Your task to perform on an android device: Go to Google Image 0: 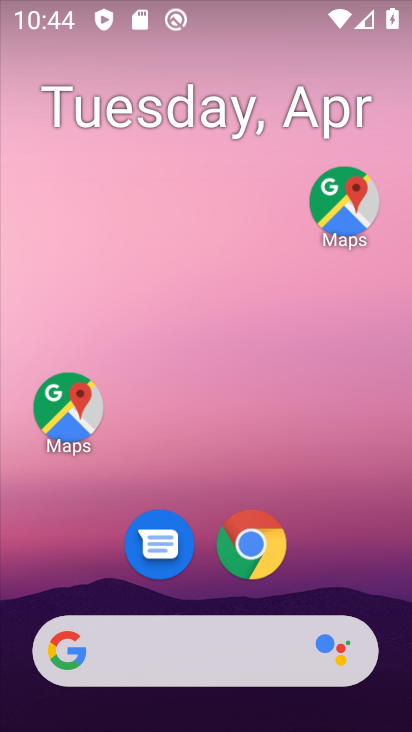
Step 0: press home button
Your task to perform on an android device: Go to Google Image 1: 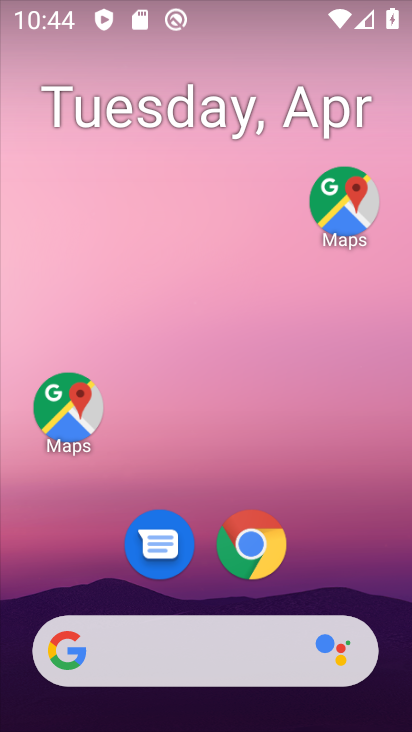
Step 1: drag from (313, 561) to (325, 103)
Your task to perform on an android device: Go to Google Image 2: 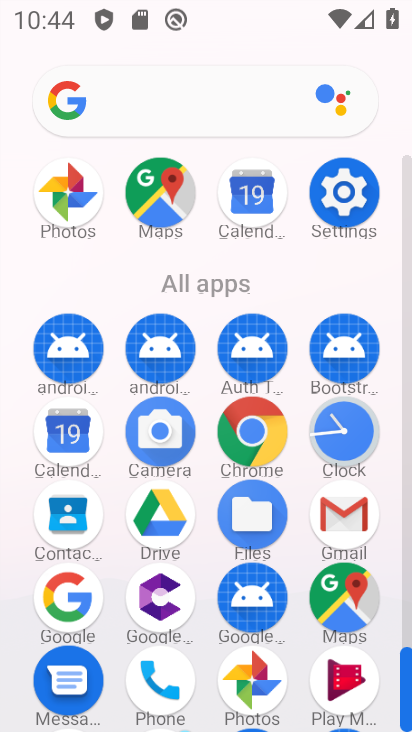
Step 2: click (87, 606)
Your task to perform on an android device: Go to Google Image 3: 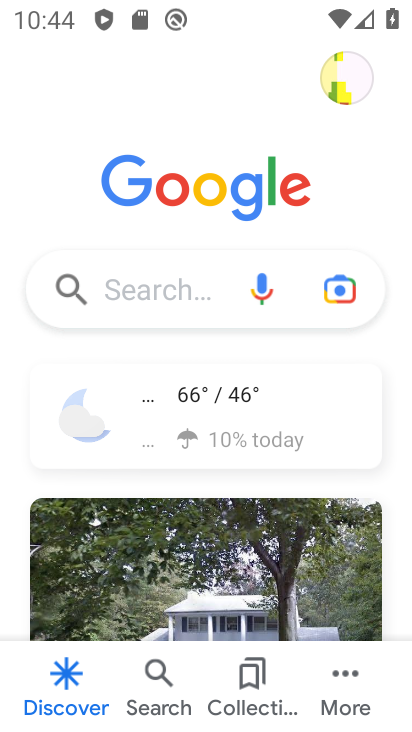
Step 3: task complete